Your task to perform on an android device: Open Google Chrome and open the bookmarks view Image 0: 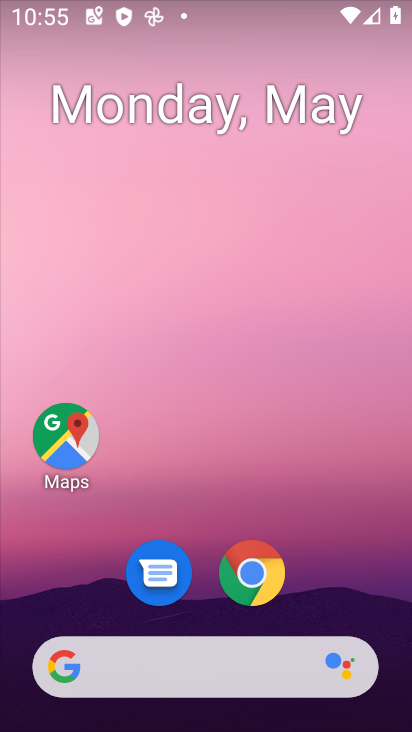
Step 0: click (260, 571)
Your task to perform on an android device: Open Google Chrome and open the bookmarks view Image 1: 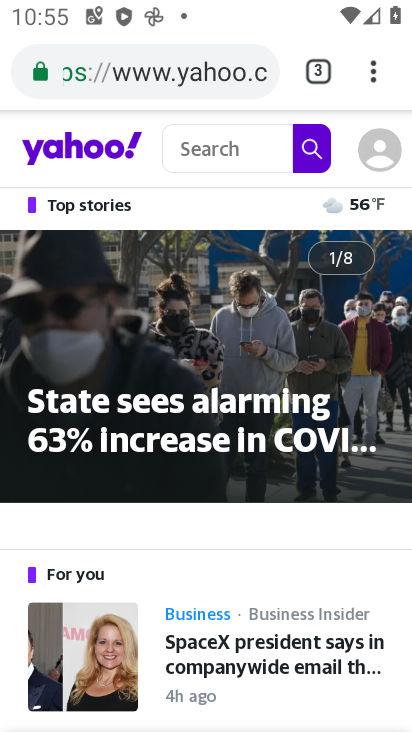
Step 1: click (374, 75)
Your task to perform on an android device: Open Google Chrome and open the bookmarks view Image 2: 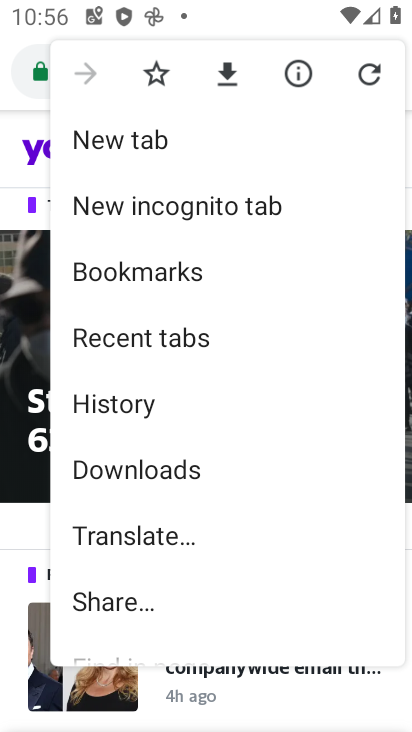
Step 2: drag from (191, 559) to (199, 381)
Your task to perform on an android device: Open Google Chrome and open the bookmarks view Image 3: 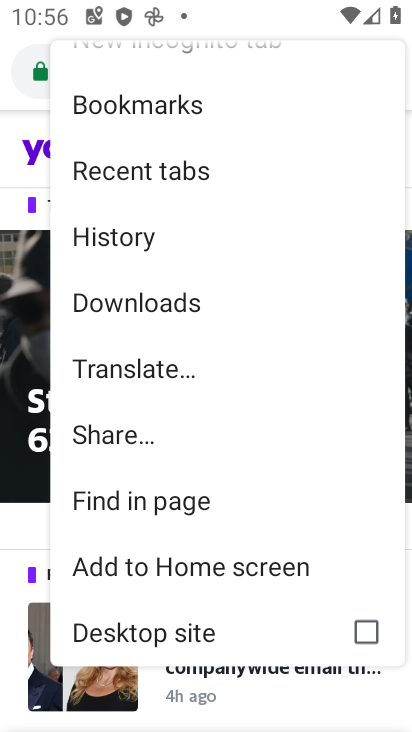
Step 3: click (206, 111)
Your task to perform on an android device: Open Google Chrome and open the bookmarks view Image 4: 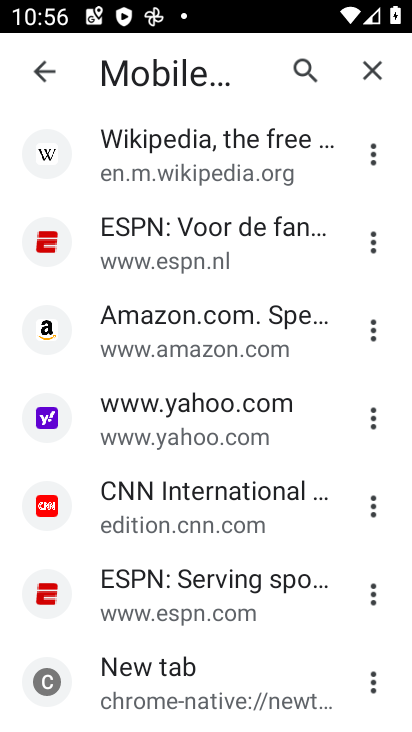
Step 4: click (195, 583)
Your task to perform on an android device: Open Google Chrome and open the bookmarks view Image 5: 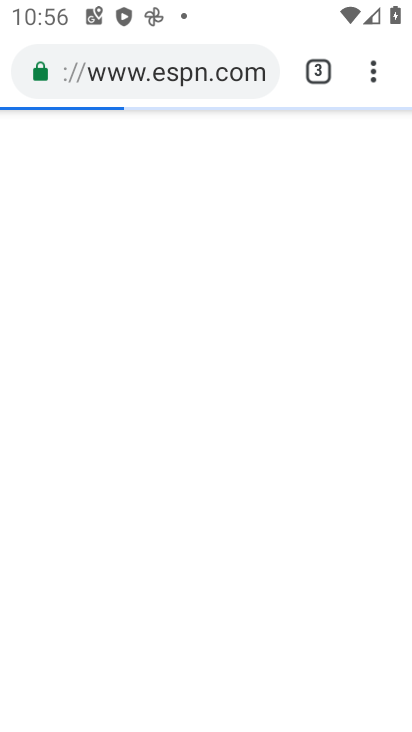
Step 5: task complete